Your task to perform on an android device: open app "Google Play Music" Image 0: 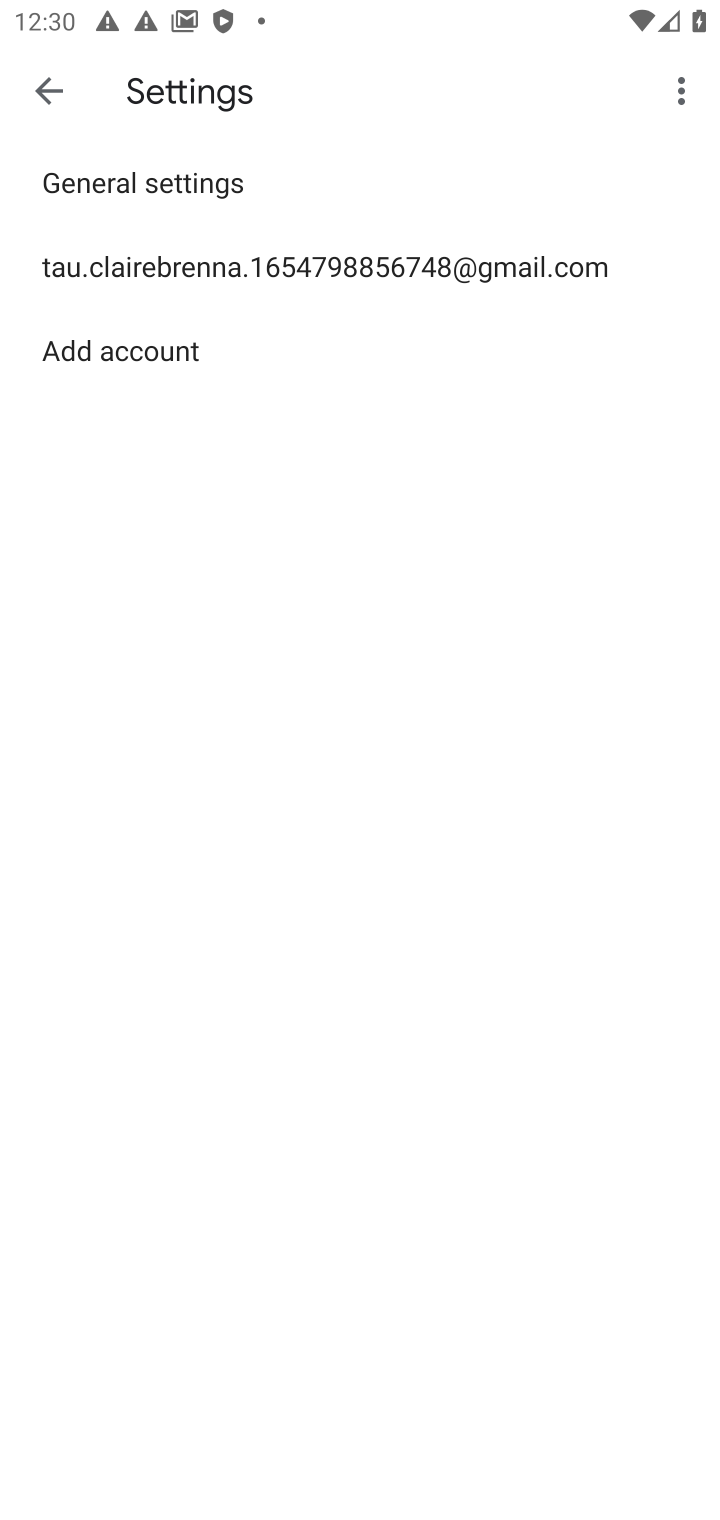
Step 0: press home button
Your task to perform on an android device: open app "Google Play Music" Image 1: 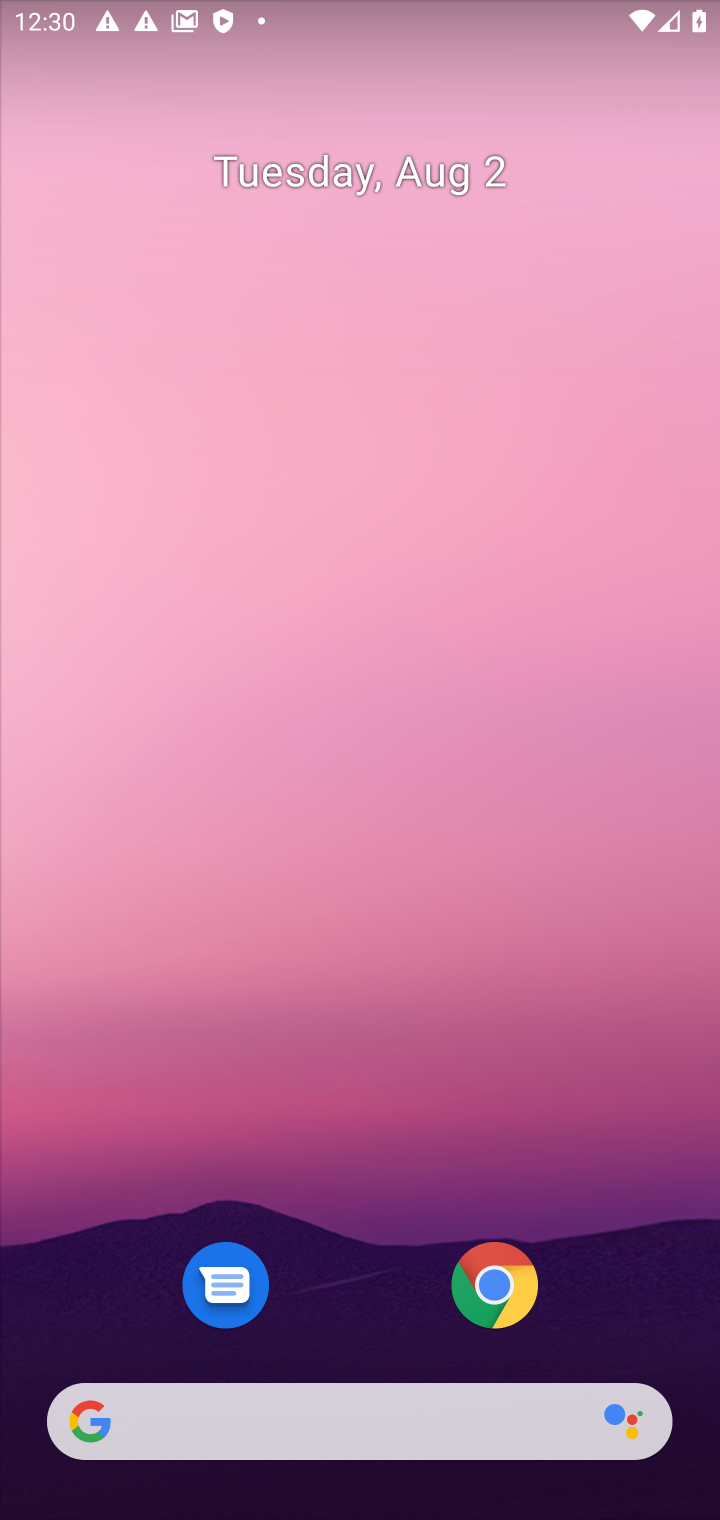
Step 1: drag from (401, 854) to (441, 401)
Your task to perform on an android device: open app "Google Play Music" Image 2: 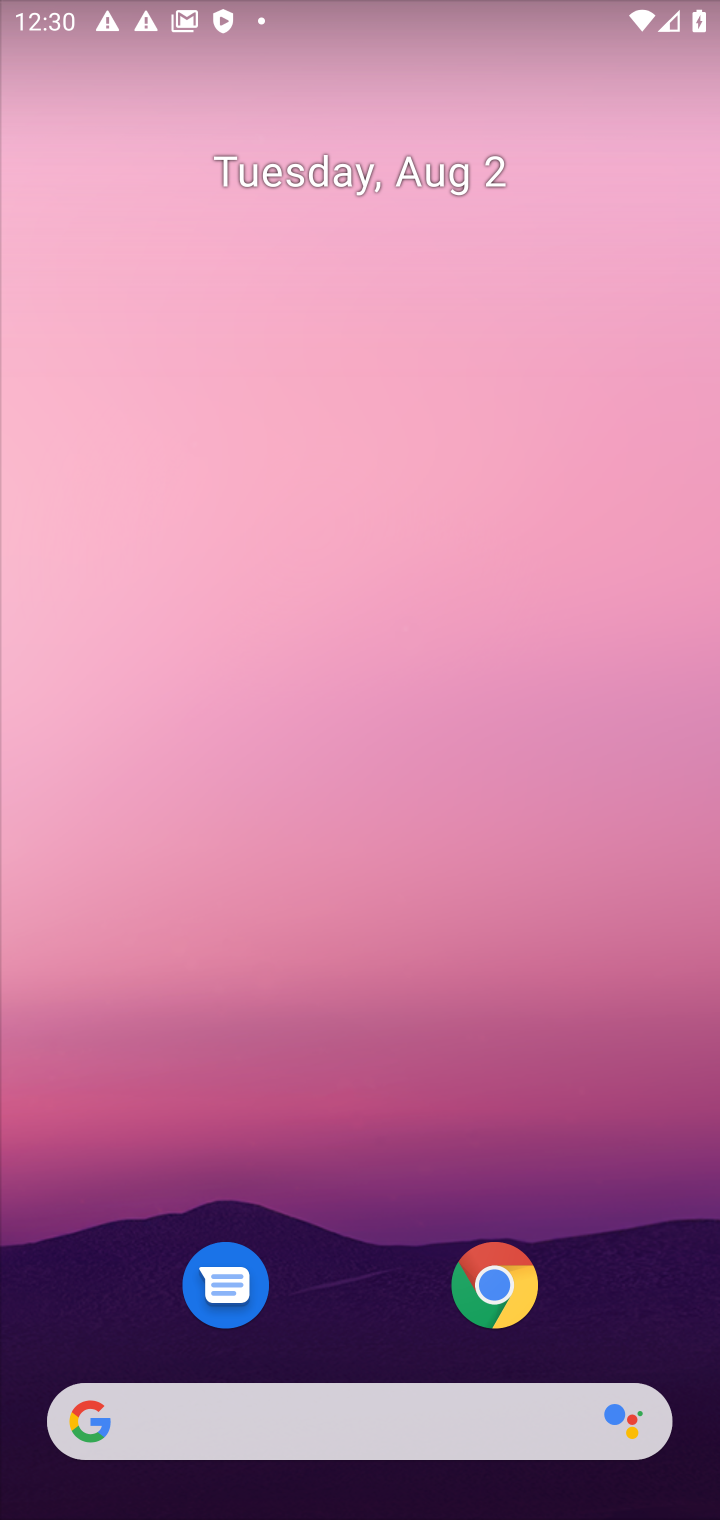
Step 2: drag from (647, 1222) to (468, 133)
Your task to perform on an android device: open app "Google Play Music" Image 3: 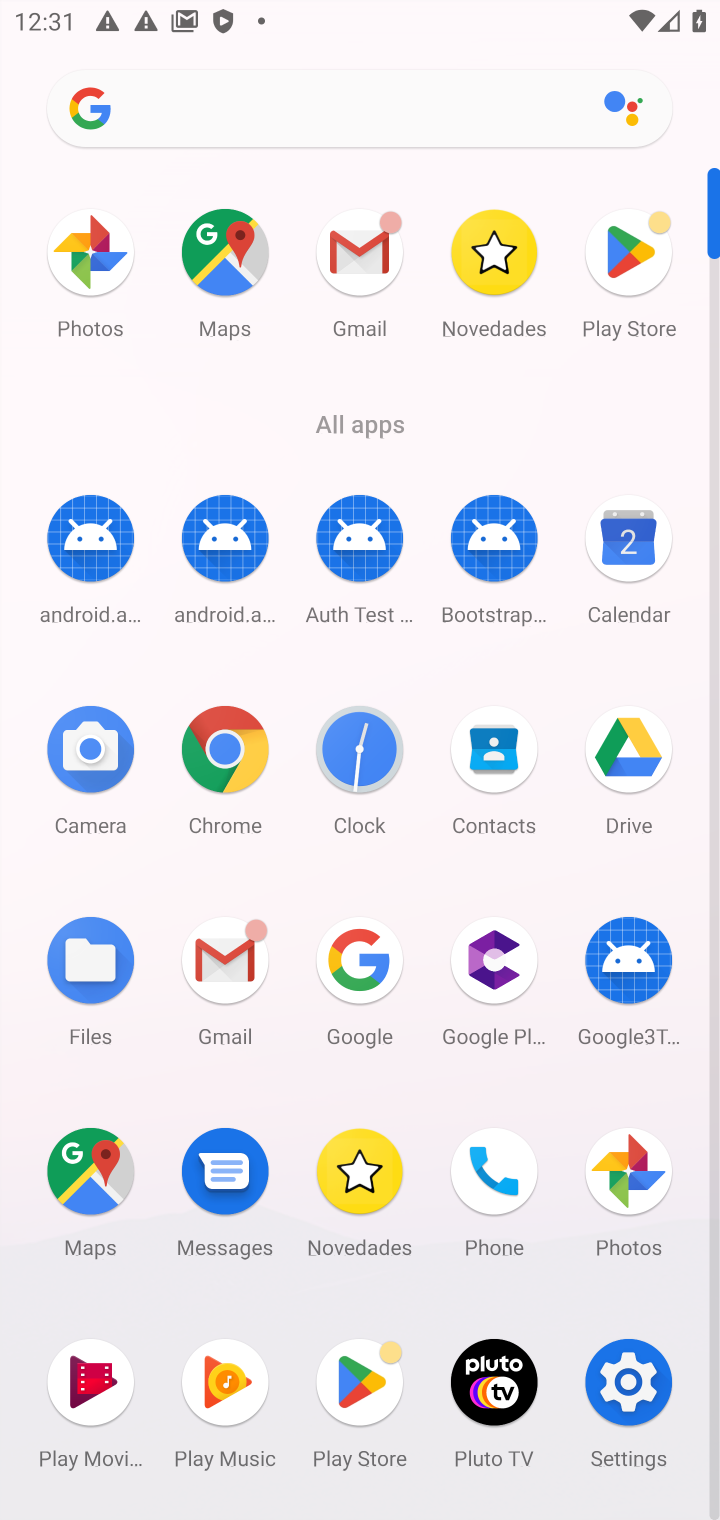
Step 3: click (361, 1378)
Your task to perform on an android device: open app "Google Play Music" Image 4: 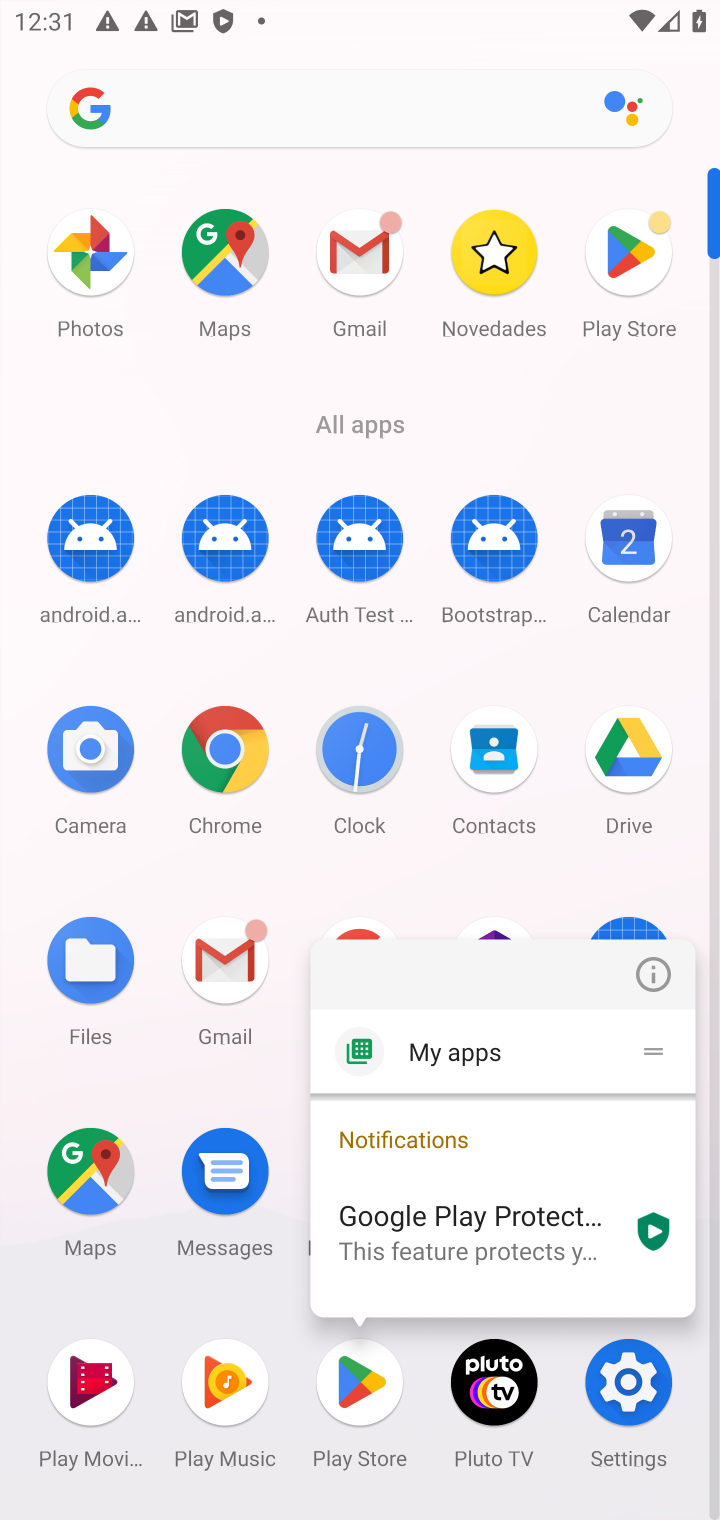
Step 4: click (361, 1390)
Your task to perform on an android device: open app "Google Play Music" Image 5: 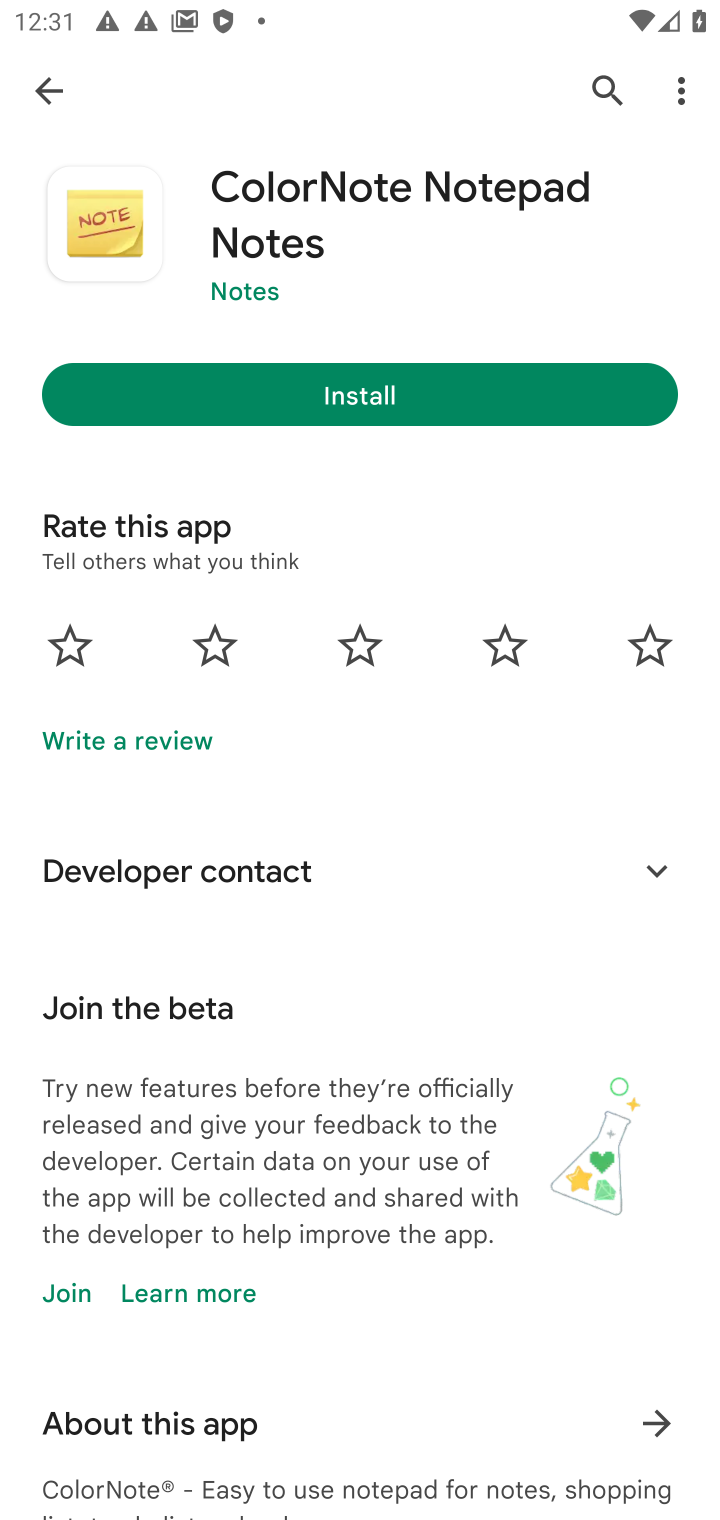
Step 5: click (611, 91)
Your task to perform on an android device: open app "Google Play Music" Image 6: 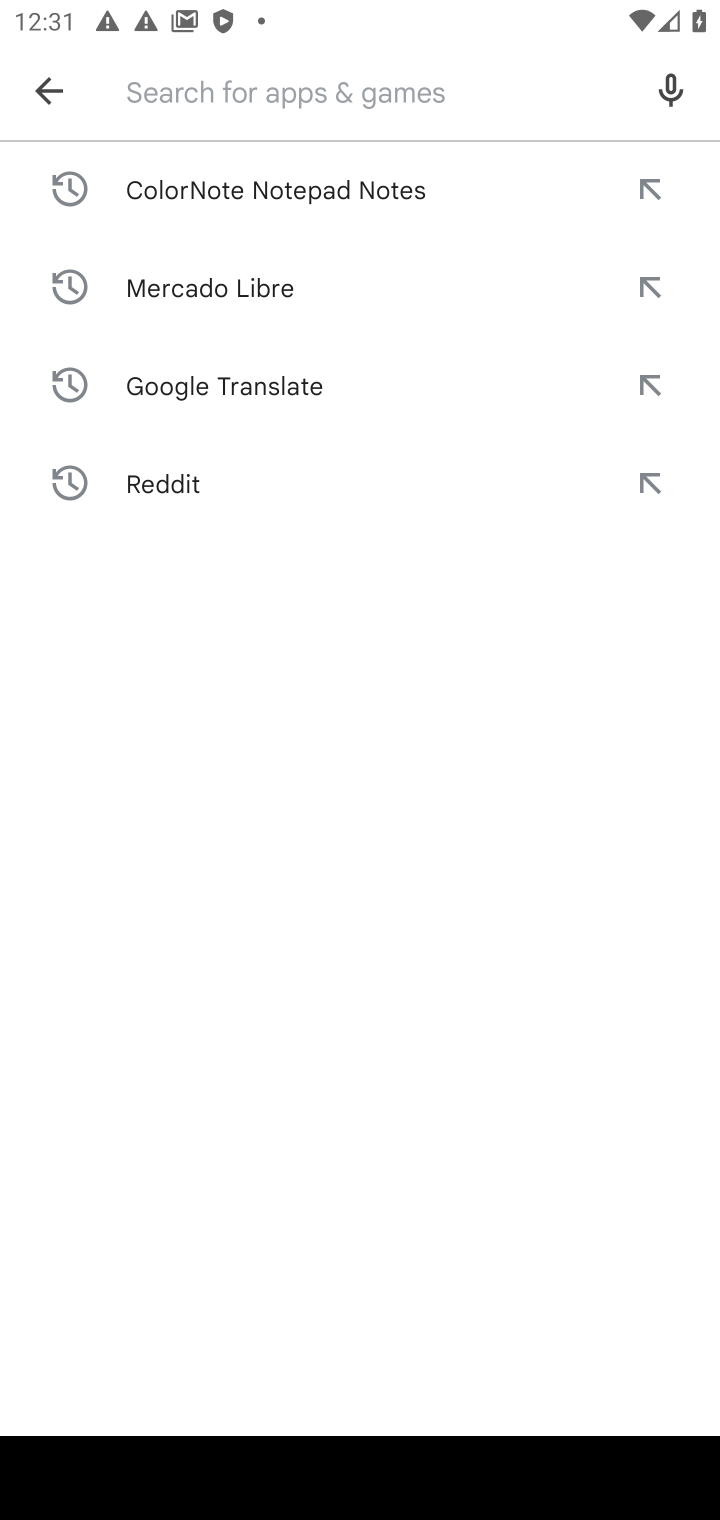
Step 6: type "Google Play Music"
Your task to perform on an android device: open app "Google Play Music" Image 7: 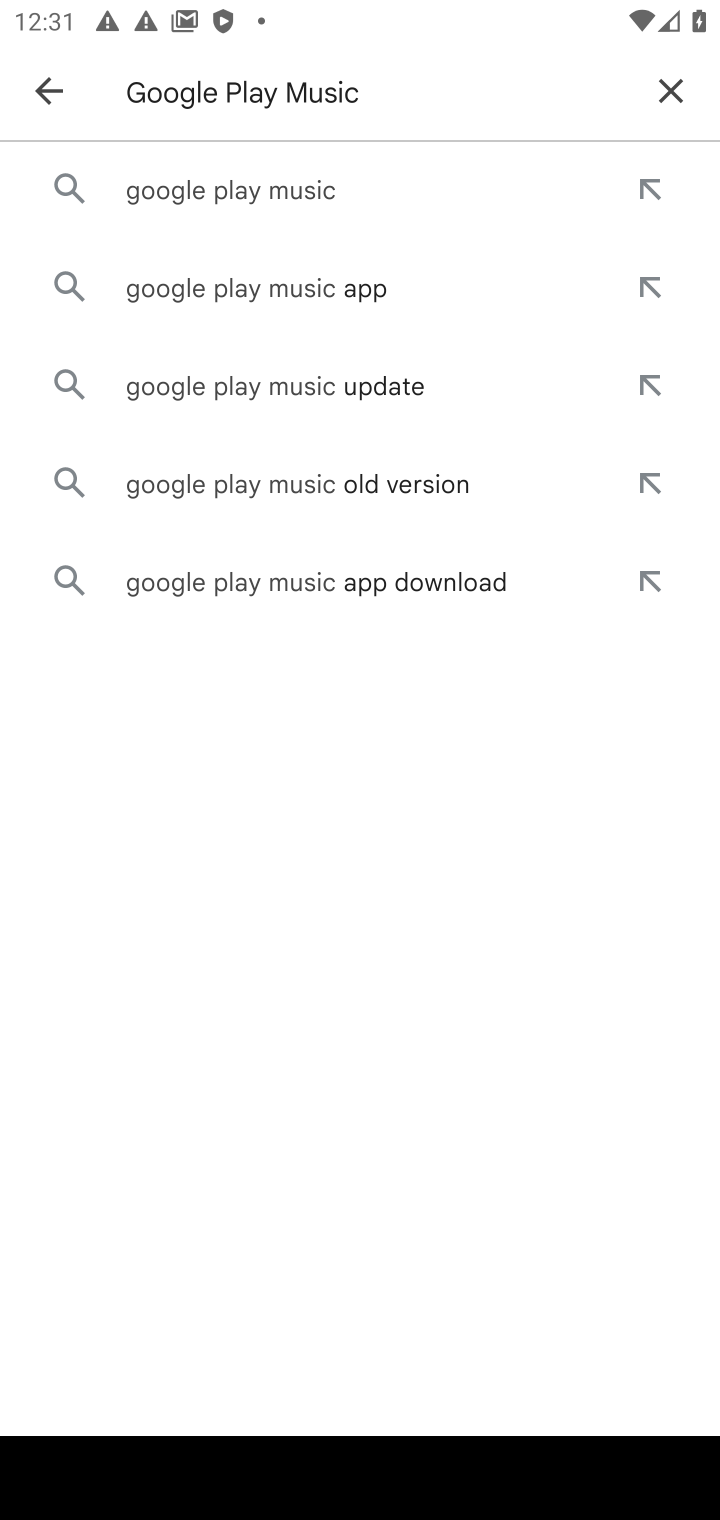
Step 7: press enter
Your task to perform on an android device: open app "Google Play Music" Image 8: 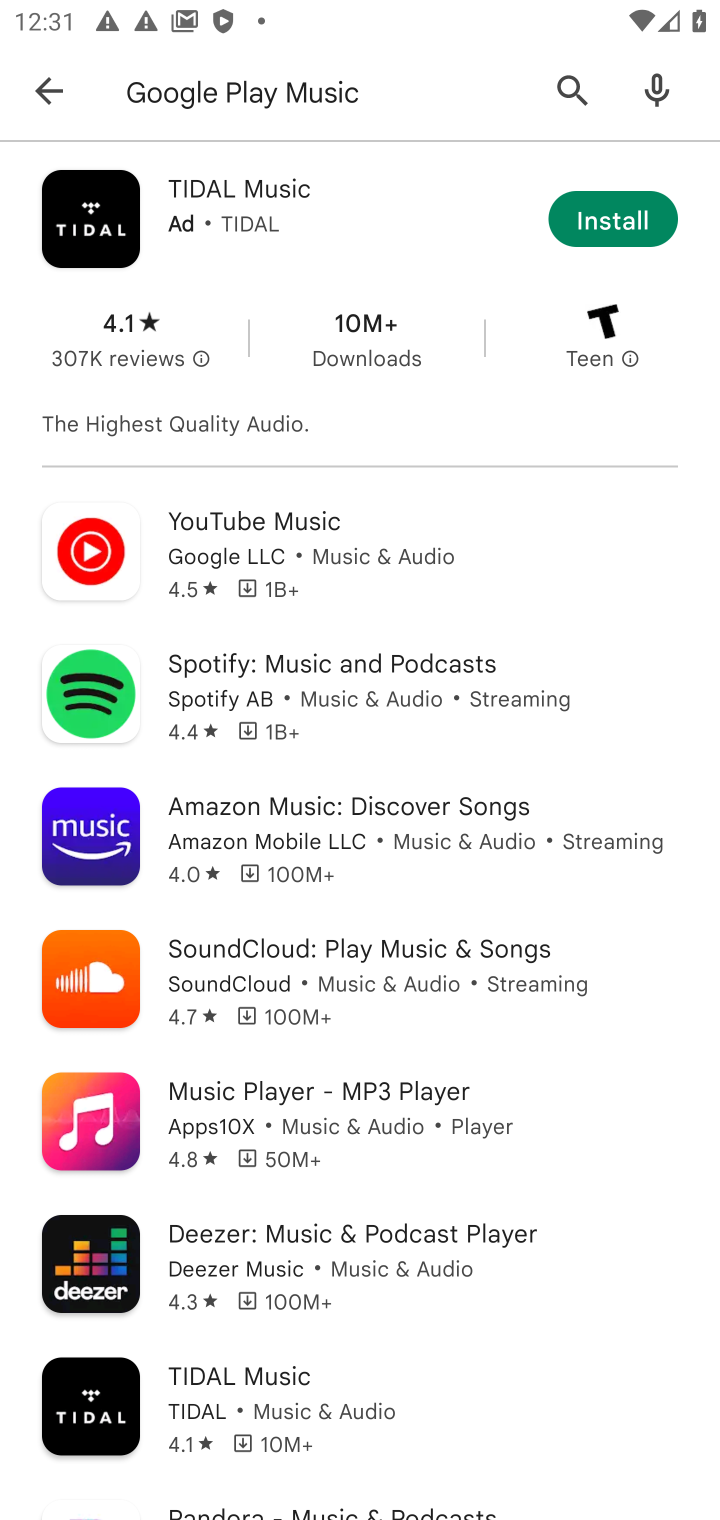
Step 8: click (232, 529)
Your task to perform on an android device: open app "Google Play Music" Image 9: 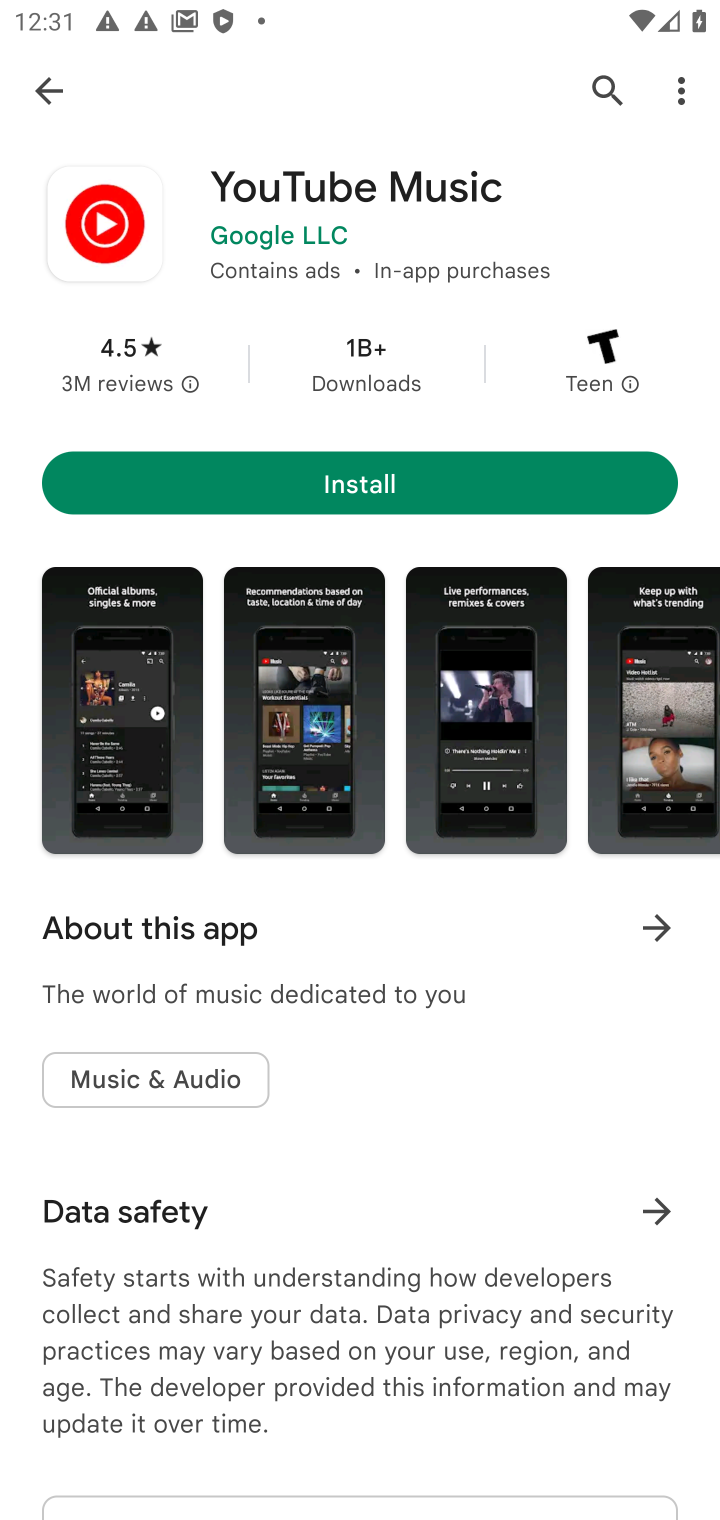
Step 9: task complete